Your task to perform on an android device: Check the settings for the Google Play Books app Image 0: 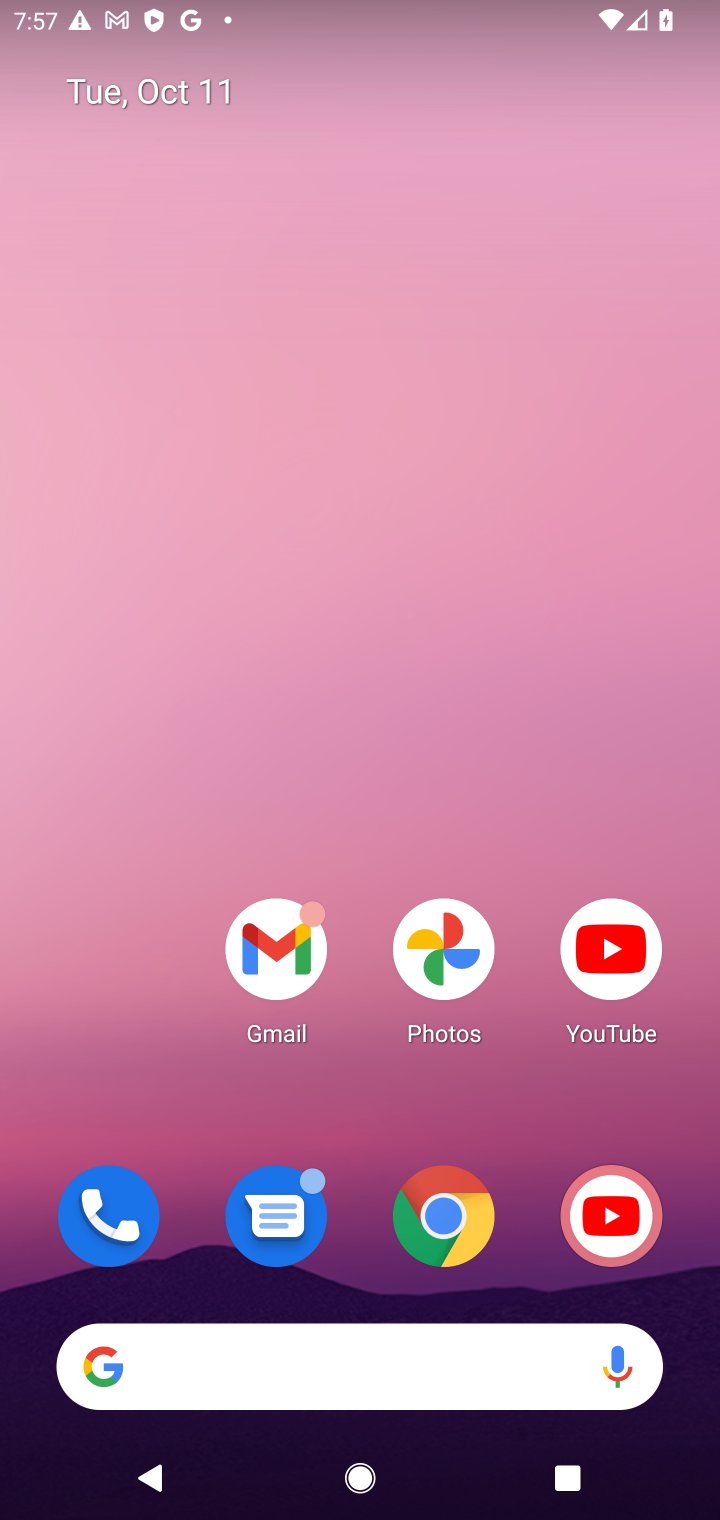
Step 0: drag from (373, 1370) to (502, 123)
Your task to perform on an android device: Check the settings for the Google Play Books app Image 1: 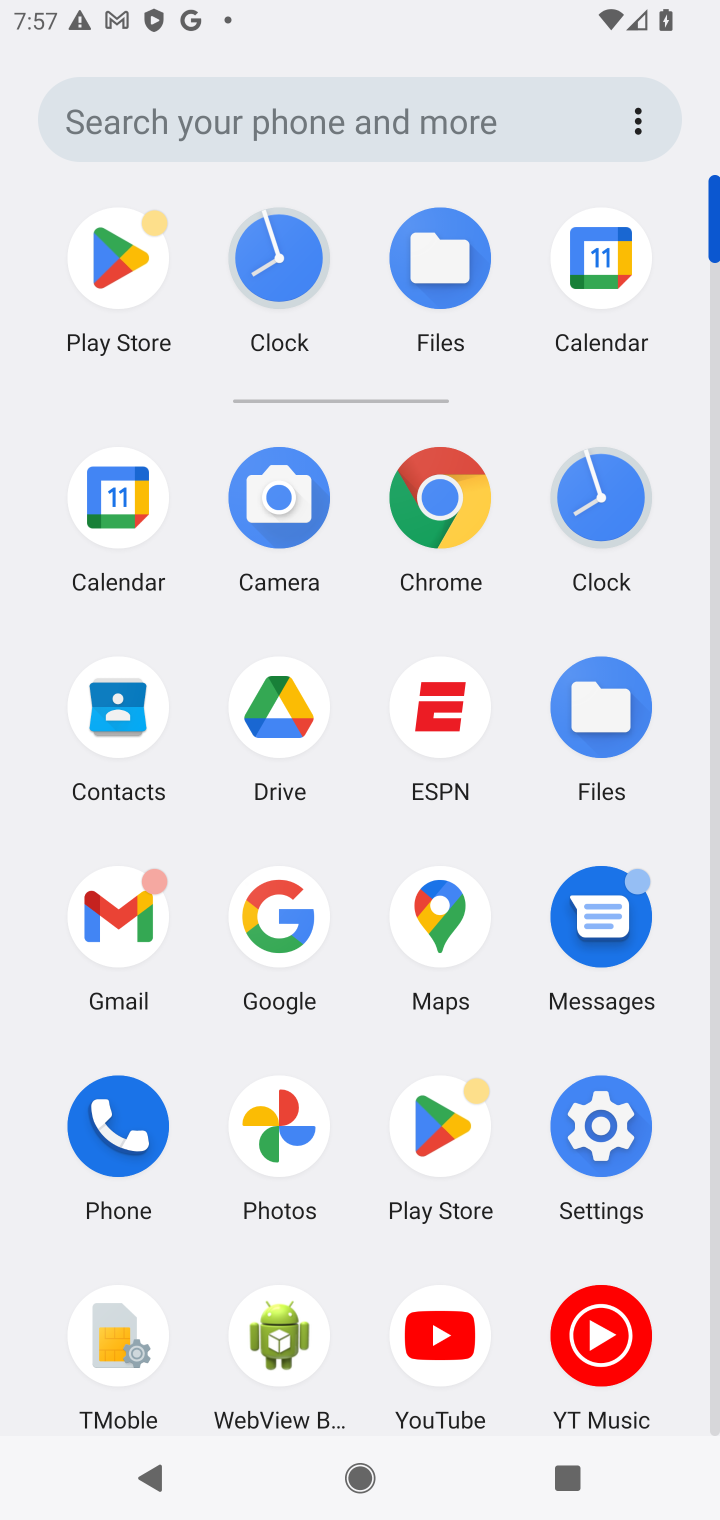
Step 1: task complete